Your task to perform on an android device: allow cookies in the chrome app Image 0: 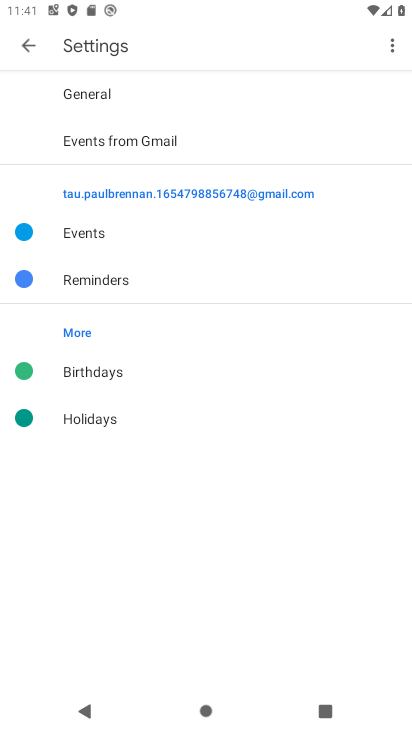
Step 0: press home button
Your task to perform on an android device: allow cookies in the chrome app Image 1: 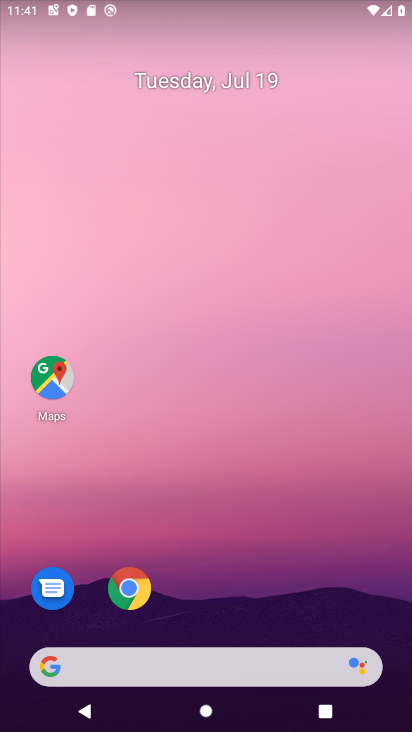
Step 1: click (142, 585)
Your task to perform on an android device: allow cookies in the chrome app Image 2: 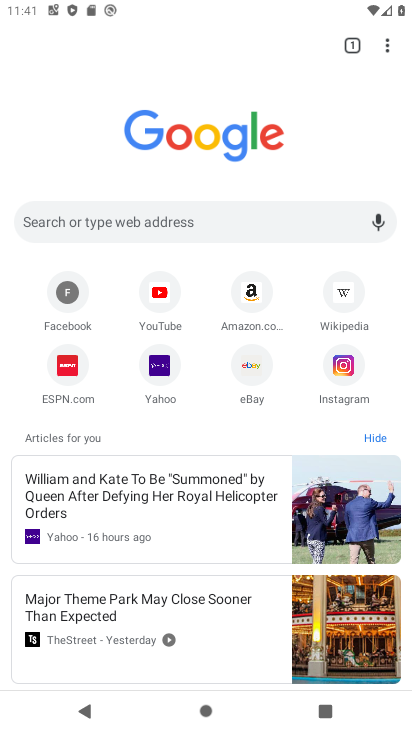
Step 2: click (380, 43)
Your task to perform on an android device: allow cookies in the chrome app Image 3: 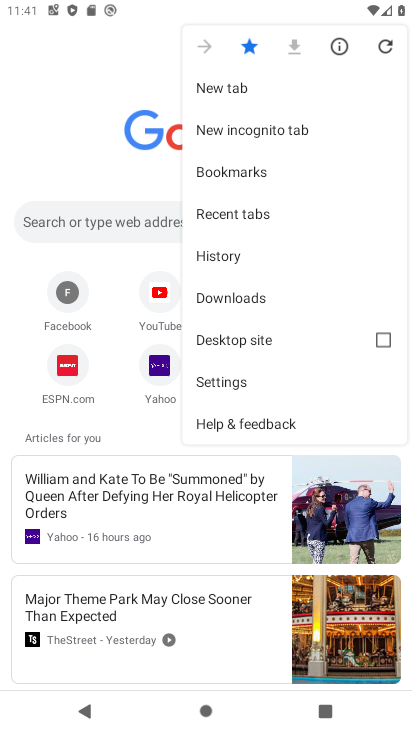
Step 3: click (226, 380)
Your task to perform on an android device: allow cookies in the chrome app Image 4: 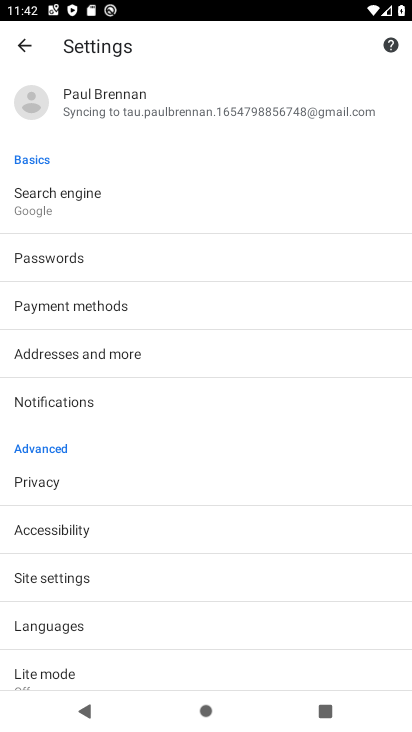
Step 4: click (46, 580)
Your task to perform on an android device: allow cookies in the chrome app Image 5: 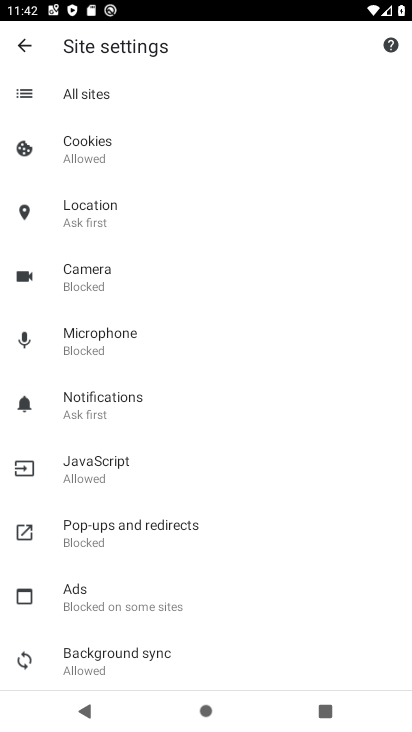
Step 5: click (98, 141)
Your task to perform on an android device: allow cookies in the chrome app Image 6: 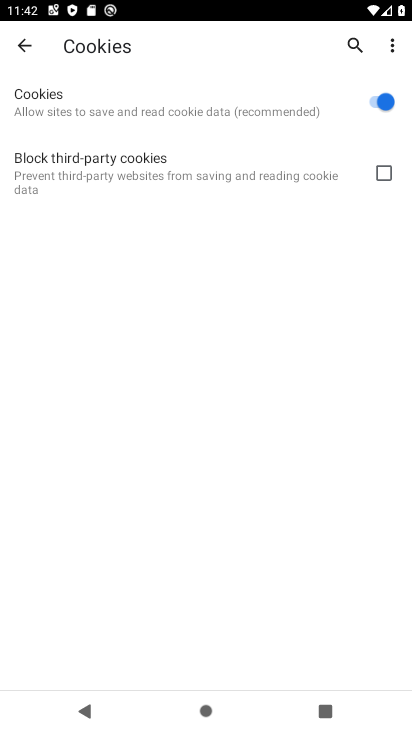
Step 6: task complete